Your task to perform on an android device: toggle javascript in the chrome app Image 0: 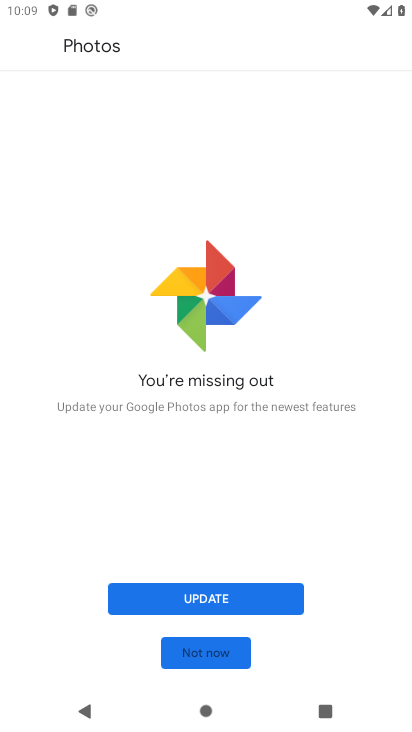
Step 0: press back button
Your task to perform on an android device: toggle javascript in the chrome app Image 1: 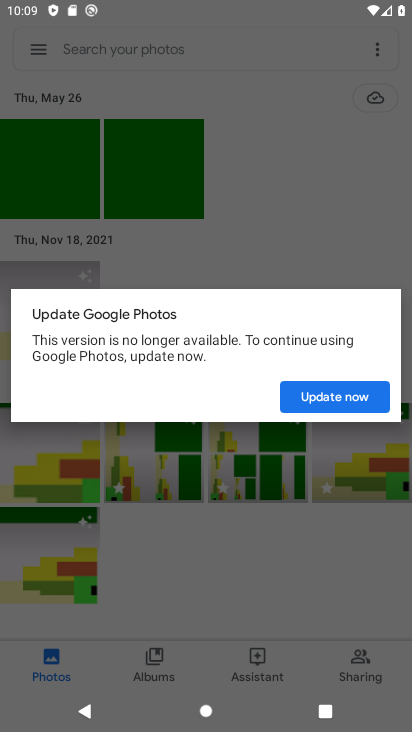
Step 1: press back button
Your task to perform on an android device: toggle javascript in the chrome app Image 2: 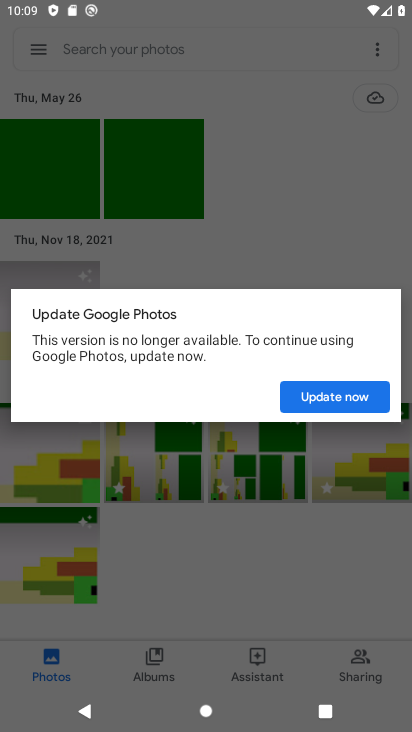
Step 2: press home button
Your task to perform on an android device: toggle javascript in the chrome app Image 3: 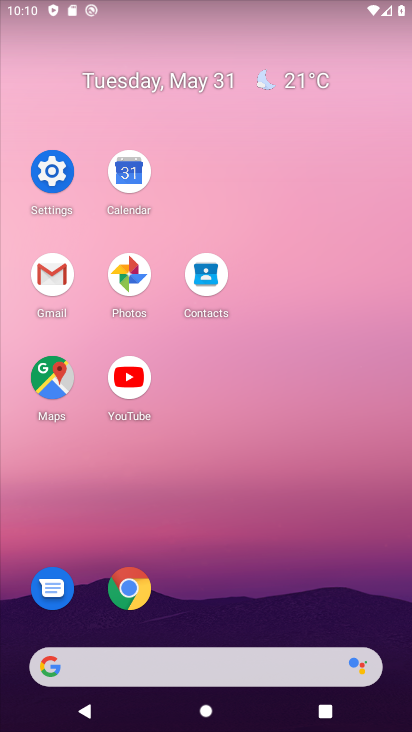
Step 3: click (135, 596)
Your task to perform on an android device: toggle javascript in the chrome app Image 4: 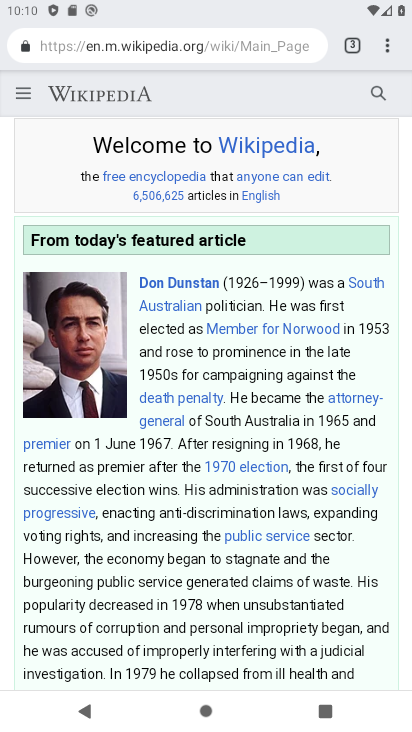
Step 4: click (387, 45)
Your task to perform on an android device: toggle javascript in the chrome app Image 5: 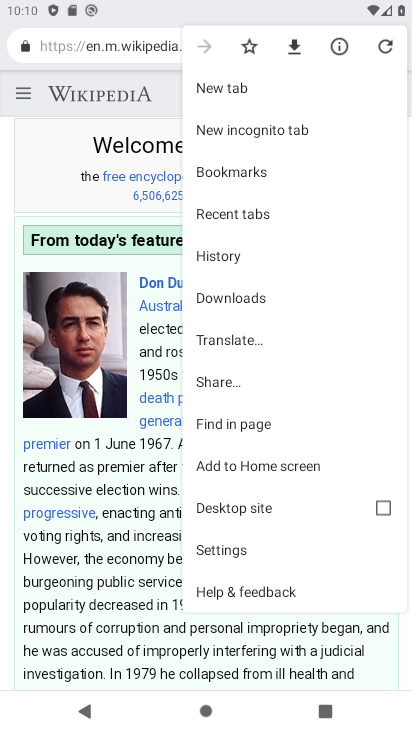
Step 5: click (269, 545)
Your task to perform on an android device: toggle javascript in the chrome app Image 6: 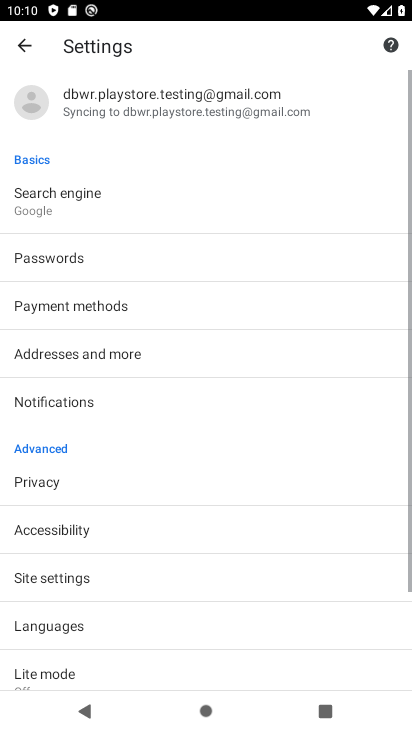
Step 6: drag from (271, 545) to (272, 114)
Your task to perform on an android device: toggle javascript in the chrome app Image 7: 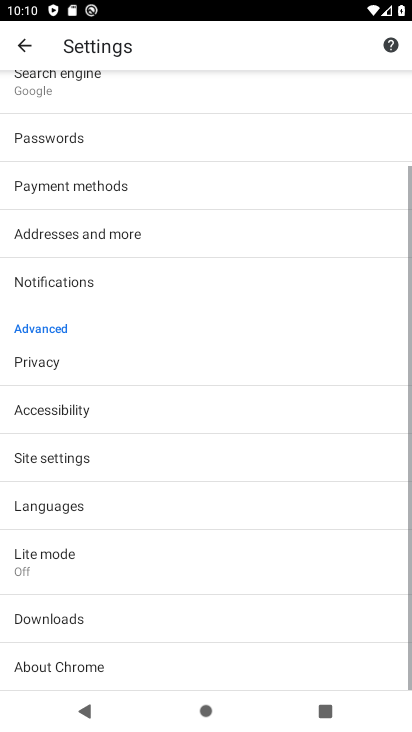
Step 7: click (159, 458)
Your task to perform on an android device: toggle javascript in the chrome app Image 8: 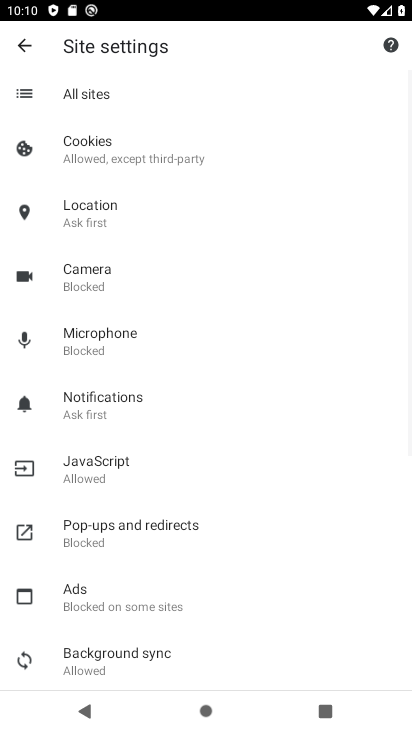
Step 8: click (159, 458)
Your task to perform on an android device: toggle javascript in the chrome app Image 9: 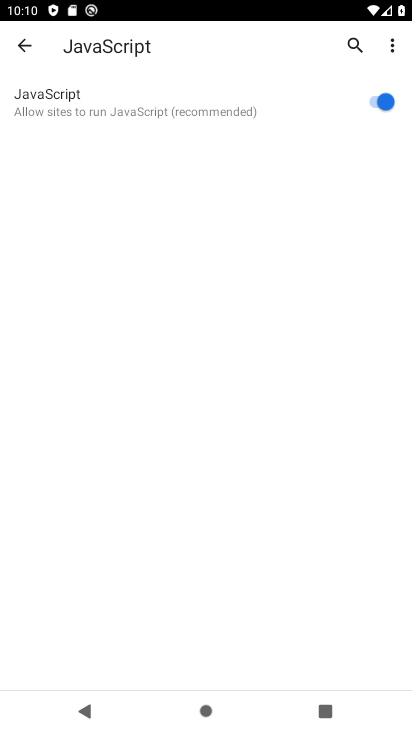
Step 9: click (387, 95)
Your task to perform on an android device: toggle javascript in the chrome app Image 10: 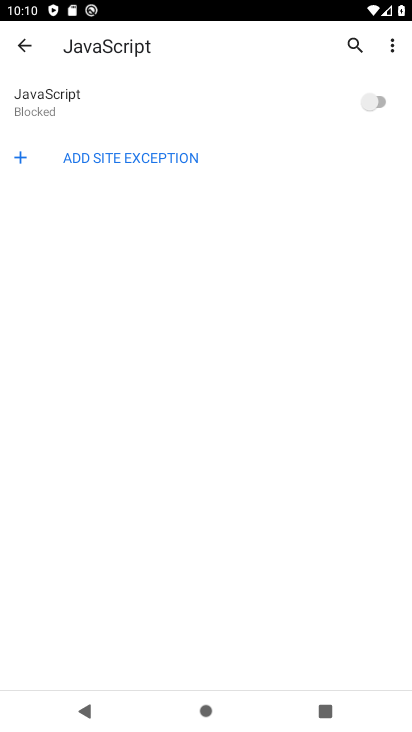
Step 10: task complete